Your task to perform on an android device: Search for the best gaming mouse on Best Buy. Image 0: 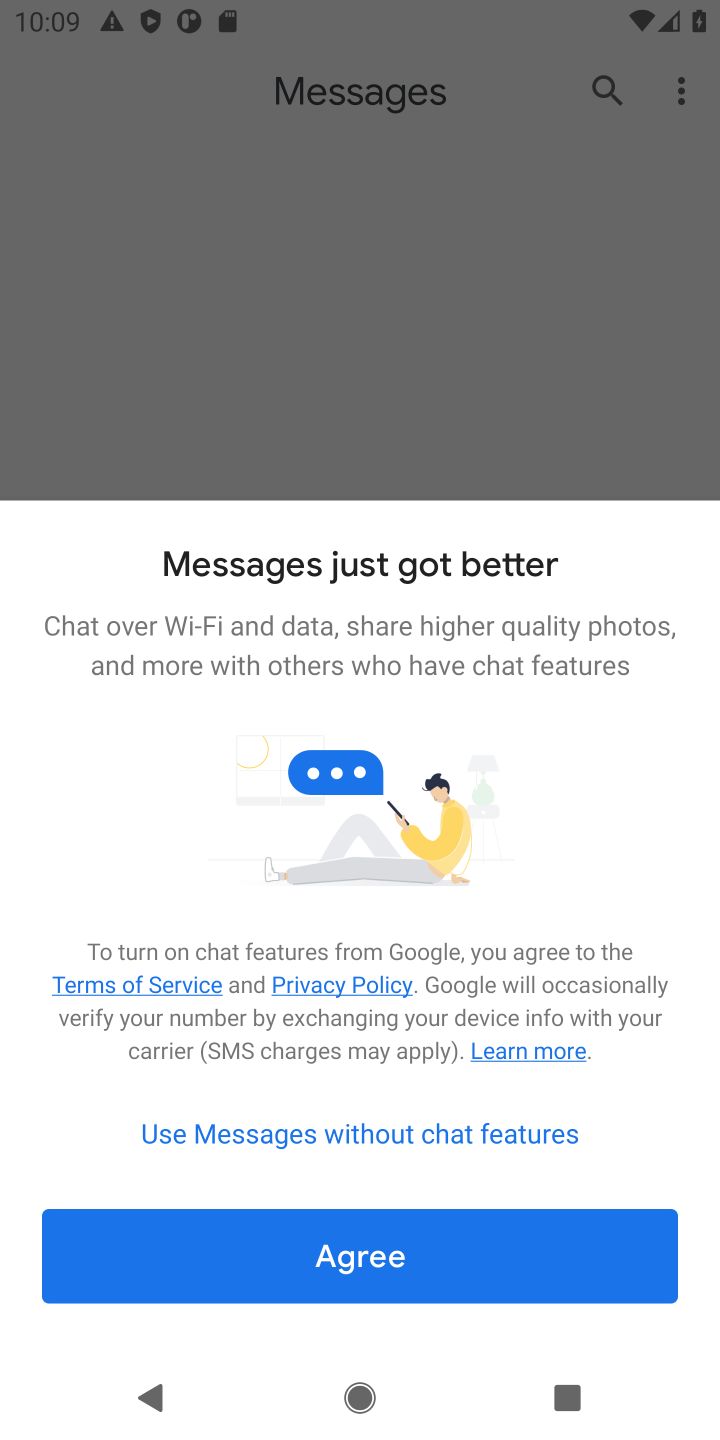
Step 0: press home button
Your task to perform on an android device: Search for the best gaming mouse on Best Buy. Image 1: 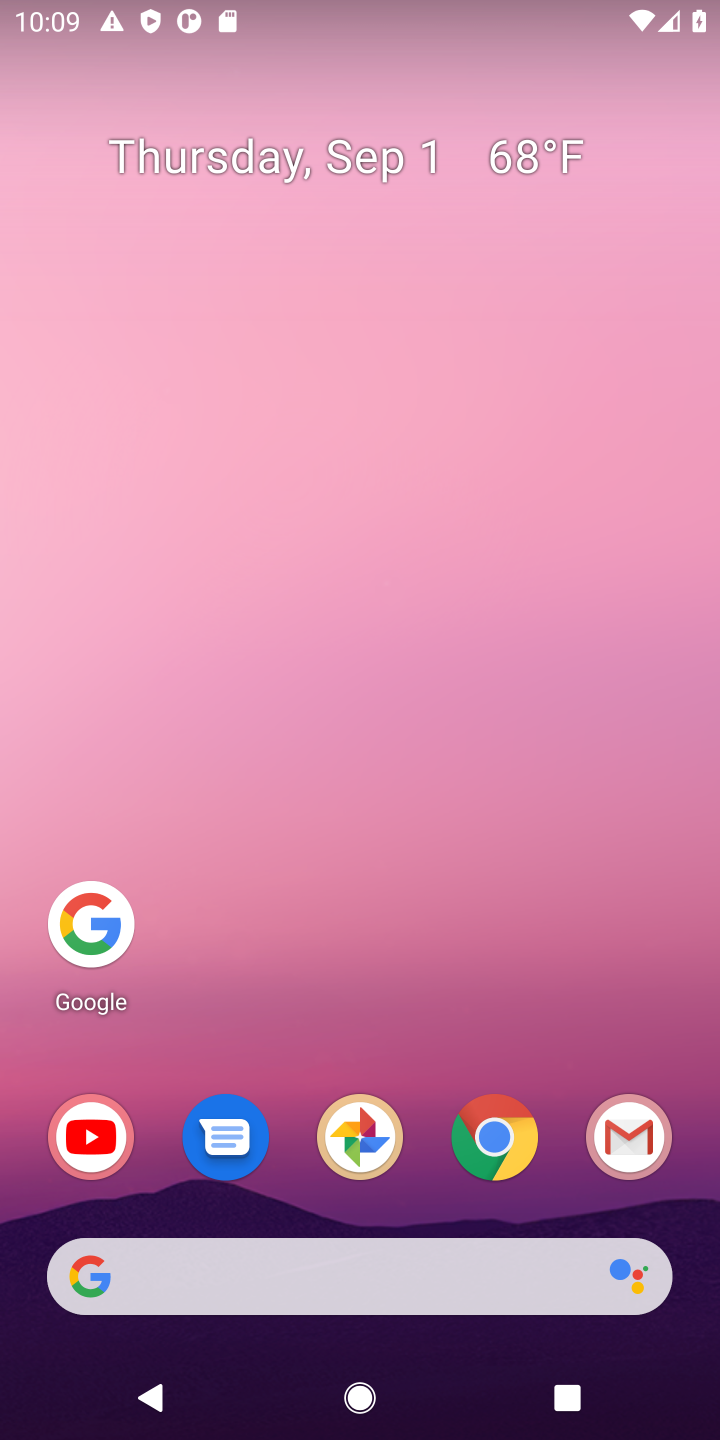
Step 1: click (90, 916)
Your task to perform on an android device: Search for the best gaming mouse on Best Buy. Image 2: 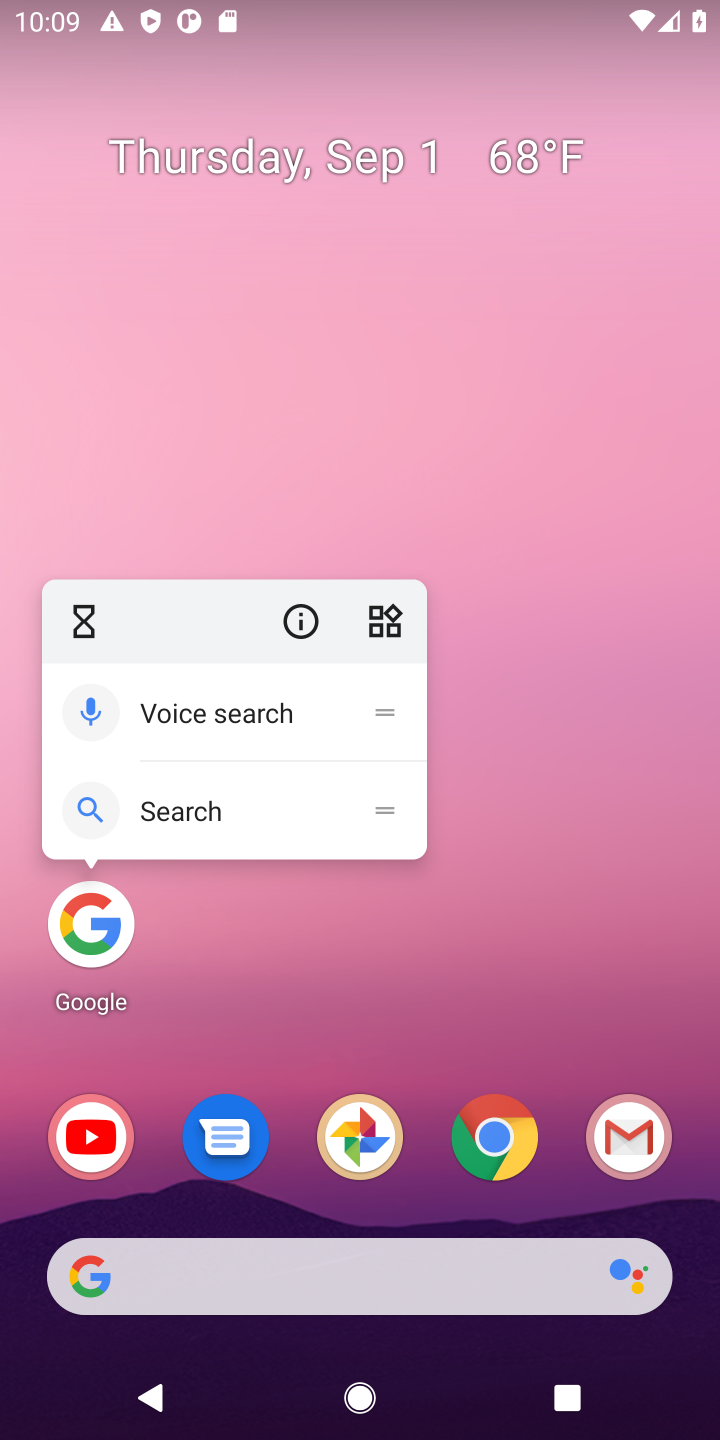
Step 2: click (91, 921)
Your task to perform on an android device: Search for the best gaming mouse on Best Buy. Image 3: 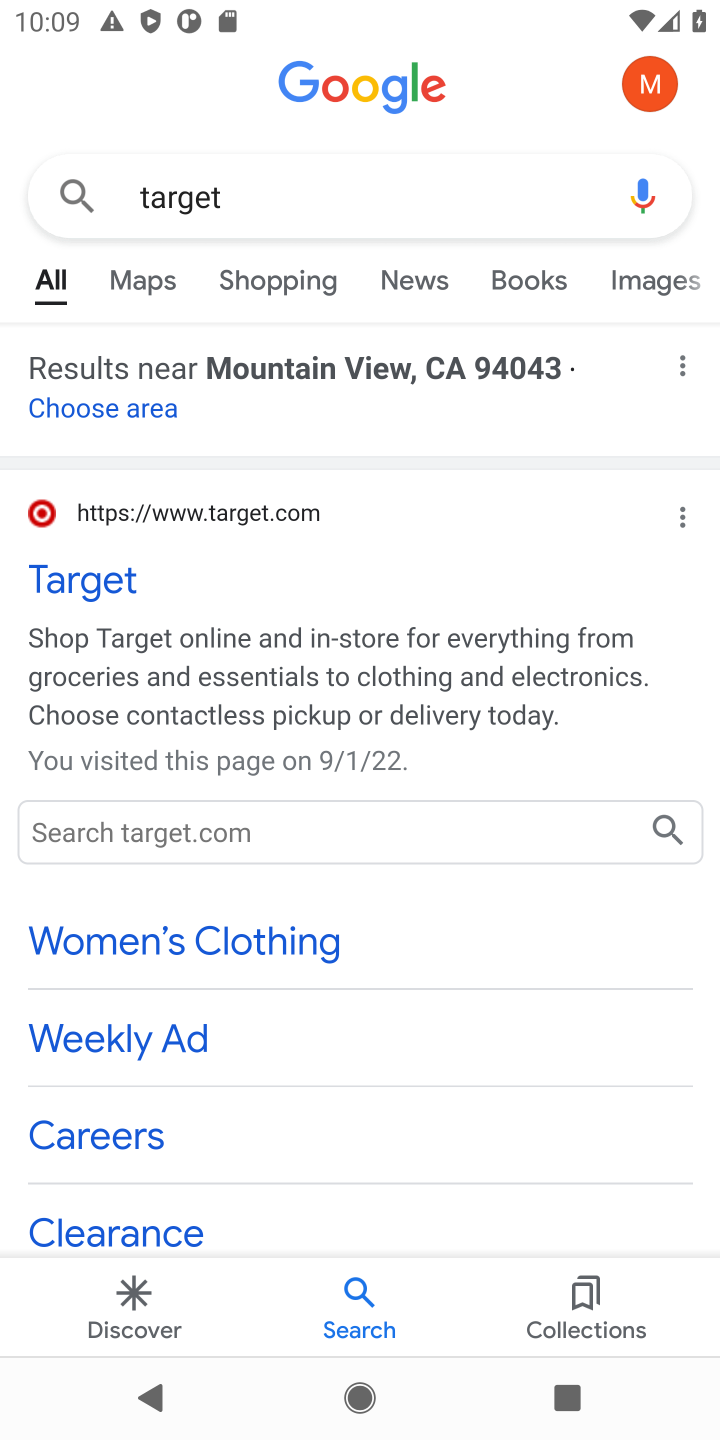
Step 3: click (354, 185)
Your task to perform on an android device: Search for the best gaming mouse on Best Buy. Image 4: 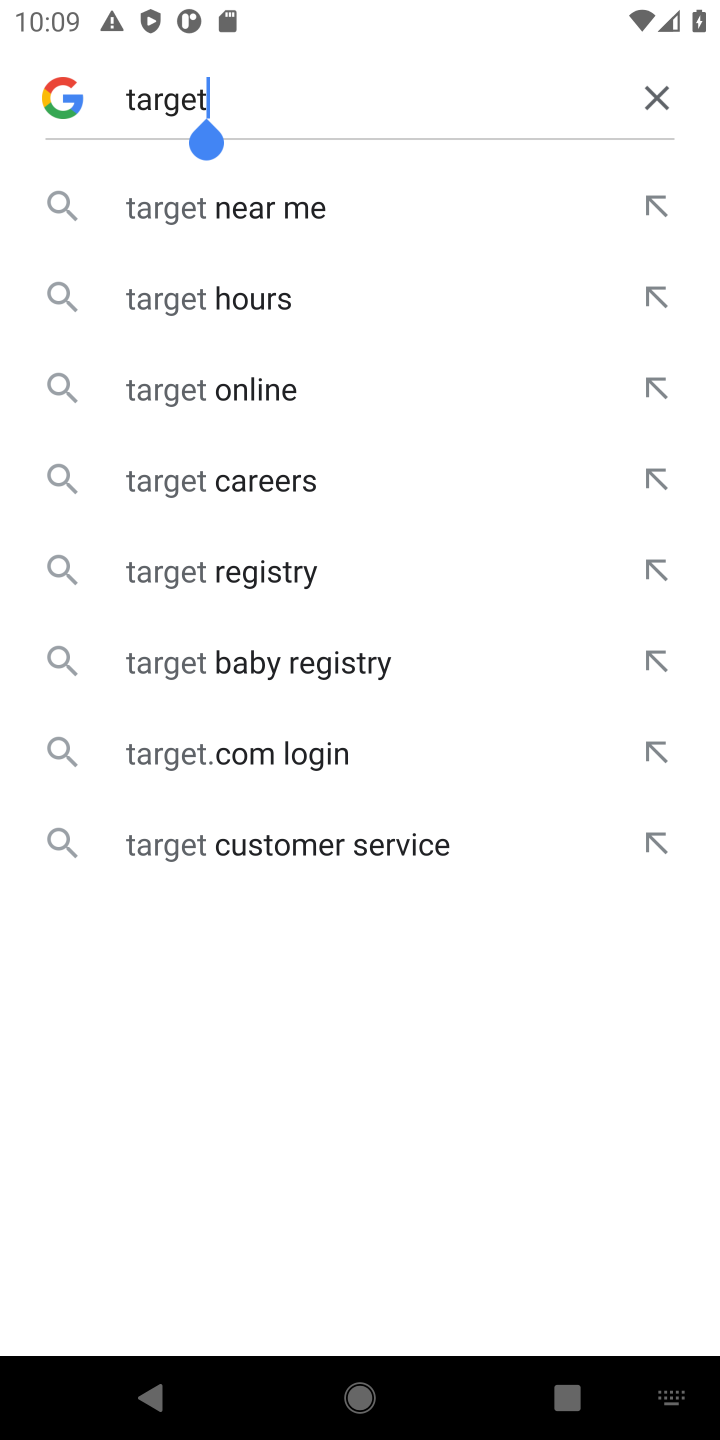
Step 4: click (666, 92)
Your task to perform on an android device: Search for the best gaming mouse on Best Buy. Image 5: 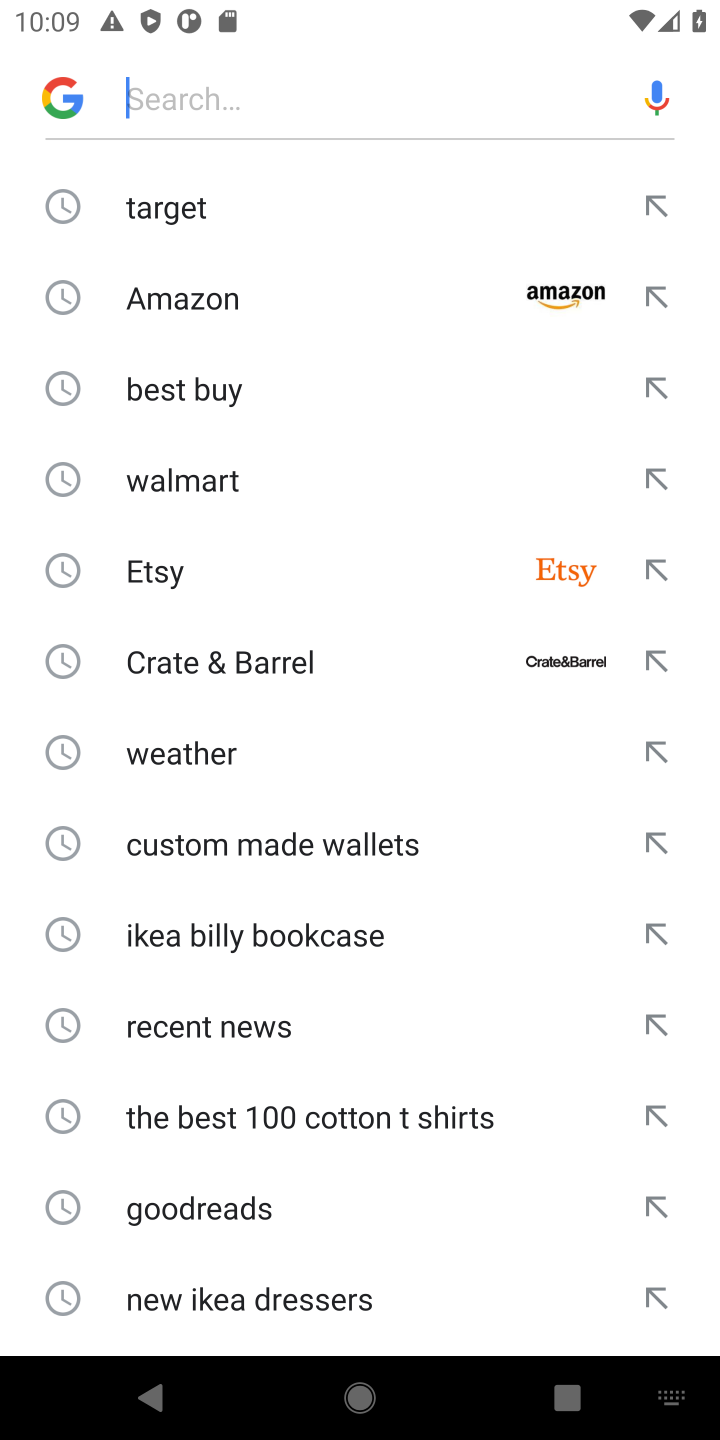
Step 5: click (175, 377)
Your task to perform on an android device: Search for the best gaming mouse on Best Buy. Image 6: 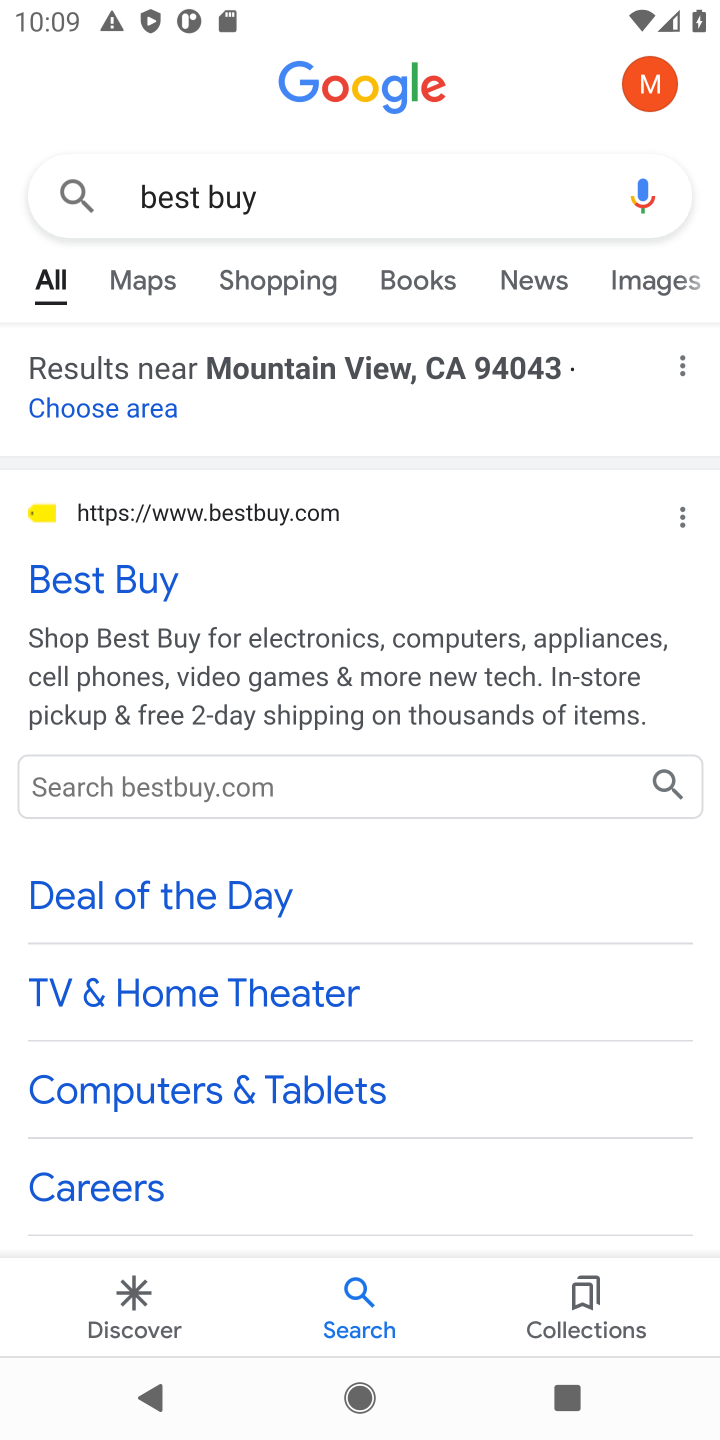
Step 6: click (101, 574)
Your task to perform on an android device: Search for the best gaming mouse on Best Buy. Image 7: 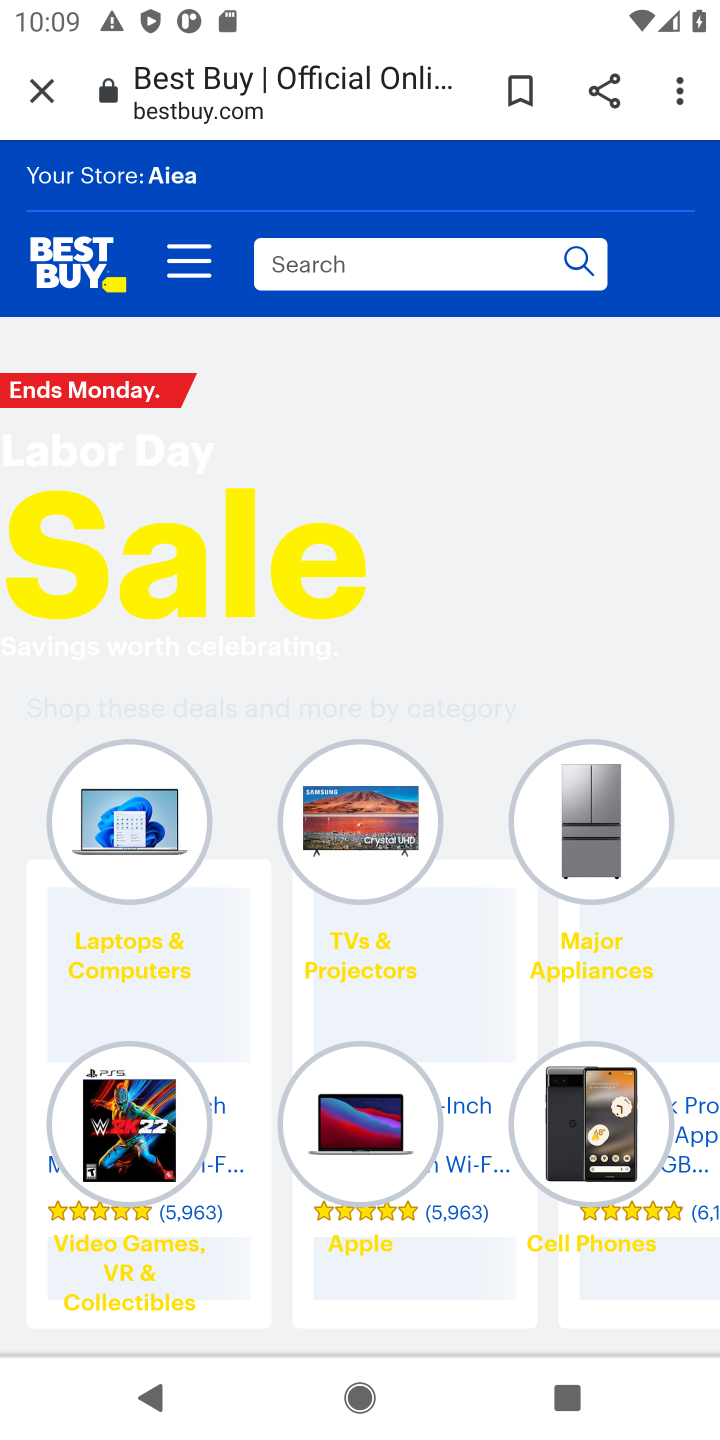
Step 7: click (401, 243)
Your task to perform on an android device: Search for the best gaming mouse on Best Buy. Image 8: 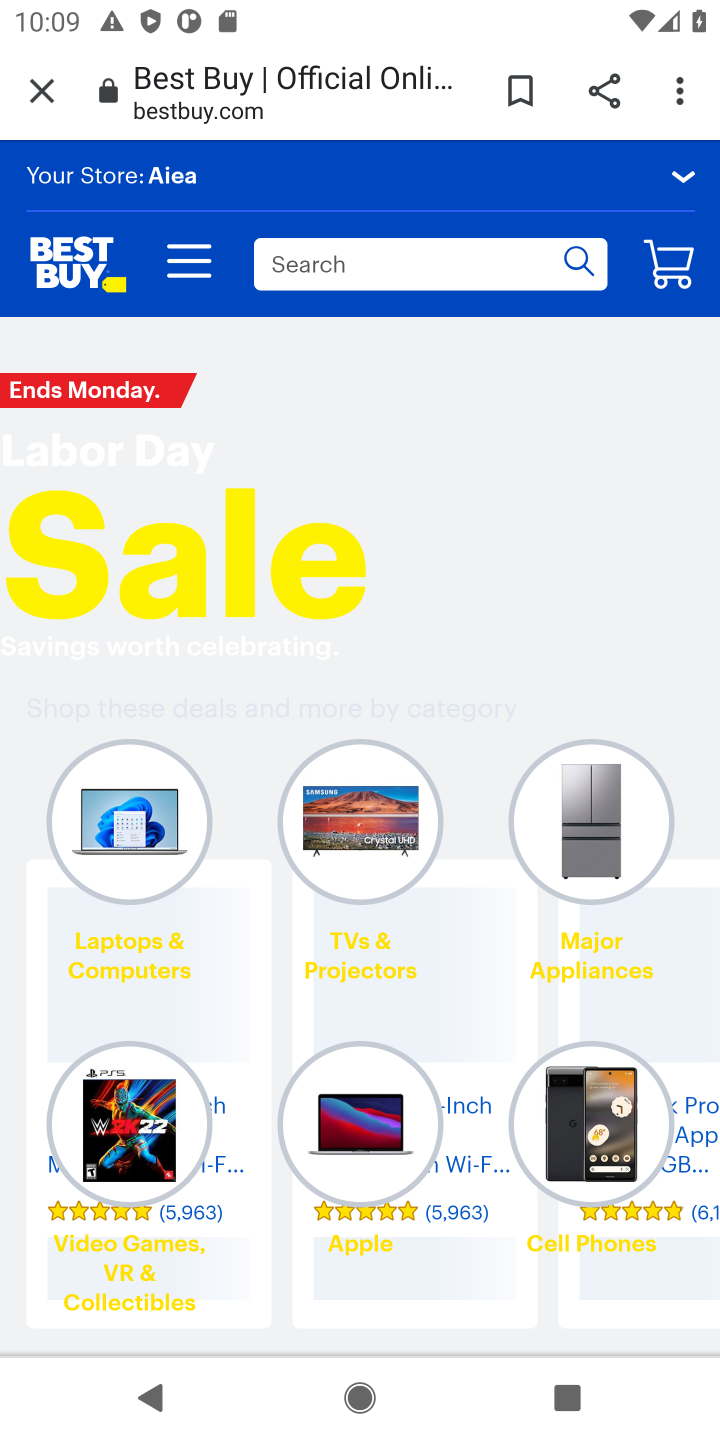
Step 8: click (333, 254)
Your task to perform on an android device: Search for the best gaming mouse on Best Buy. Image 9: 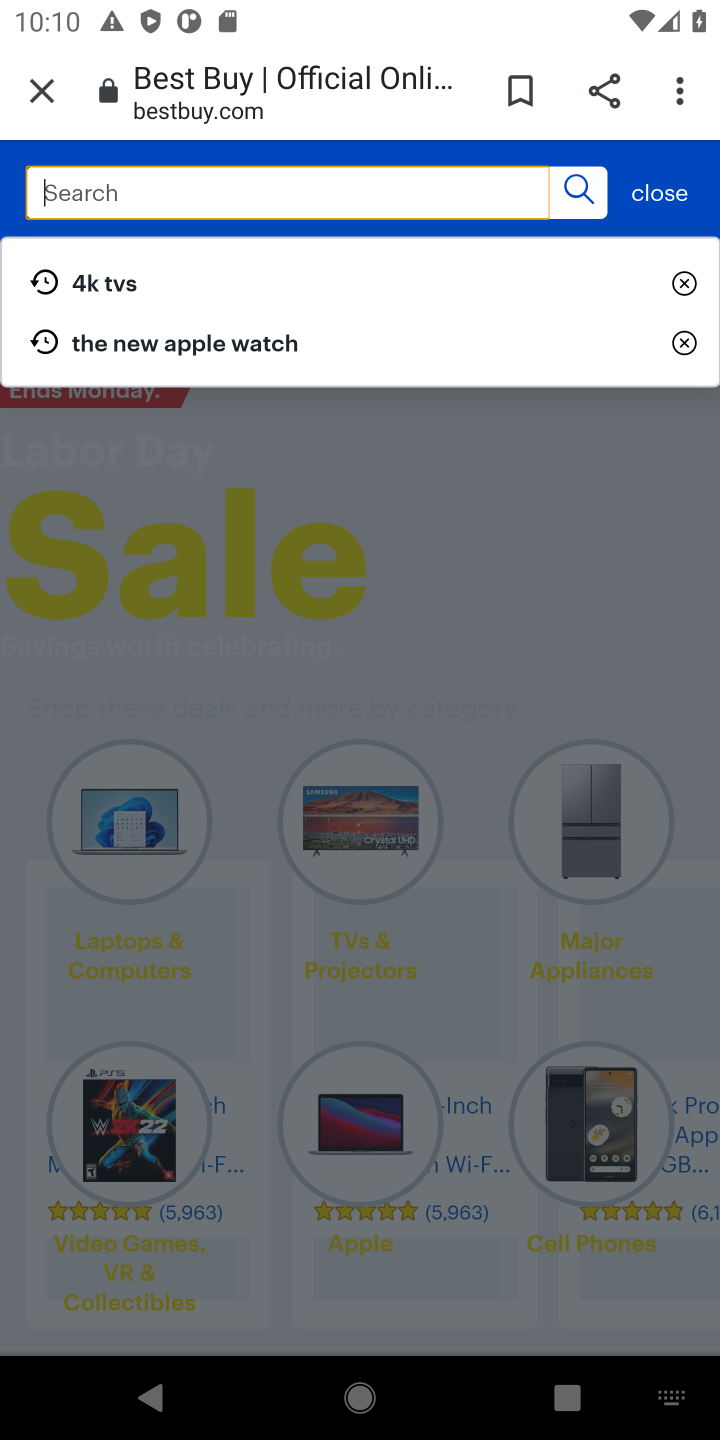
Step 9: type "best gaming mouse"
Your task to perform on an android device: Search for the best gaming mouse on Best Buy. Image 10: 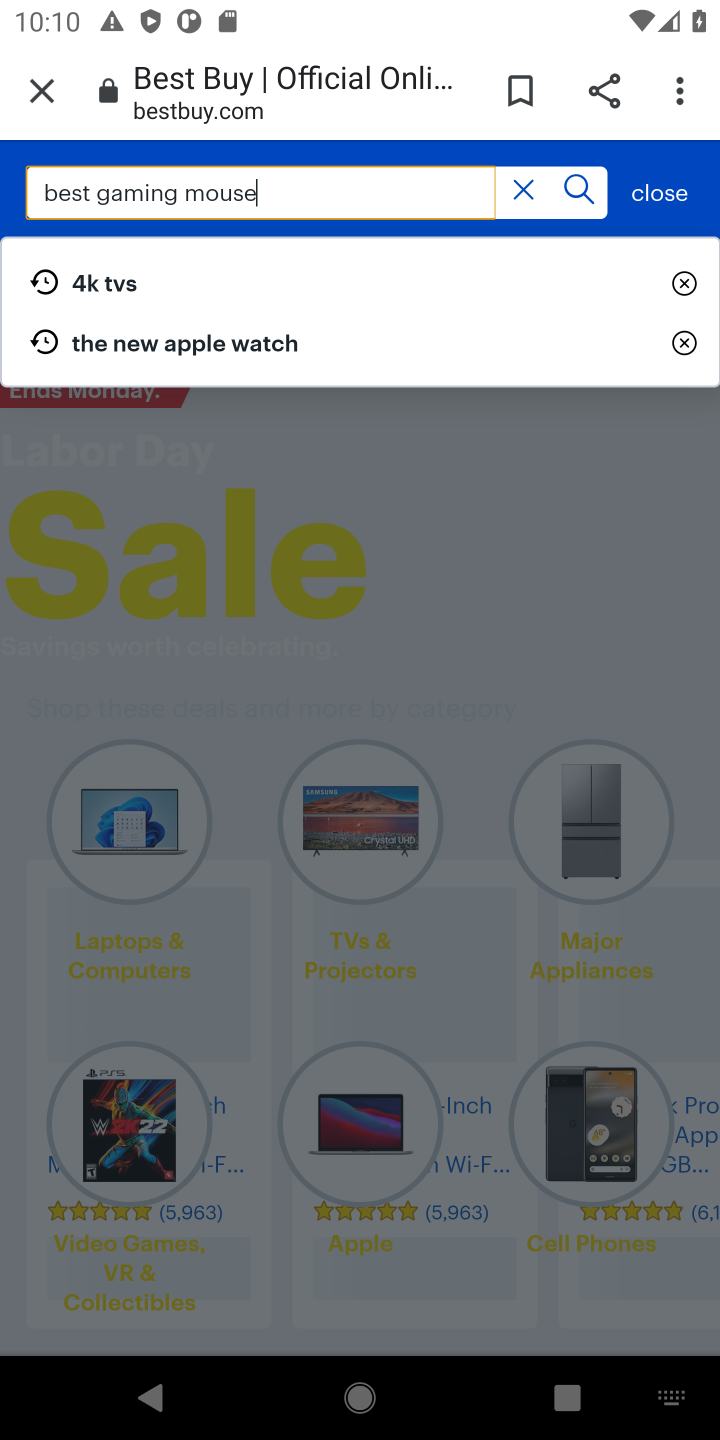
Step 10: click (579, 184)
Your task to perform on an android device: Search for the best gaming mouse on Best Buy. Image 11: 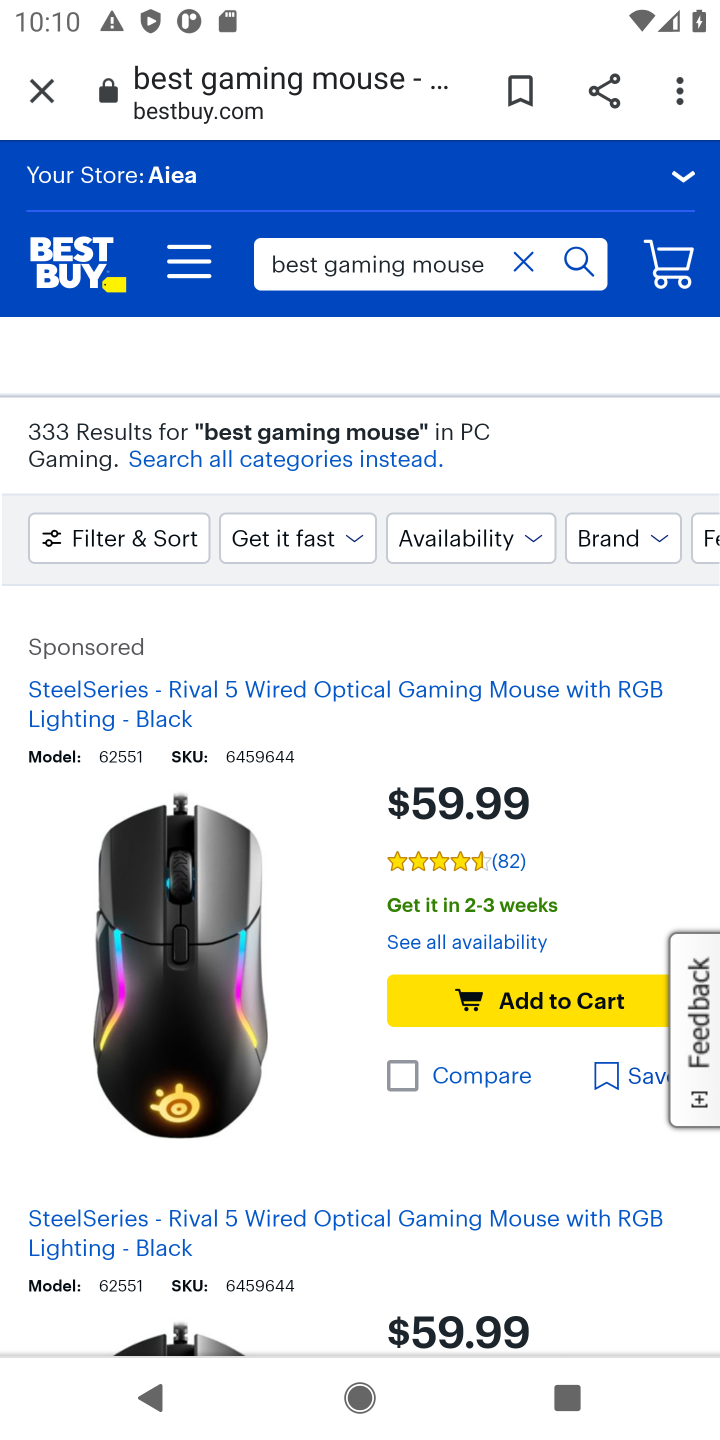
Step 11: task complete